Your task to perform on an android device: Open the calendar app Image 0: 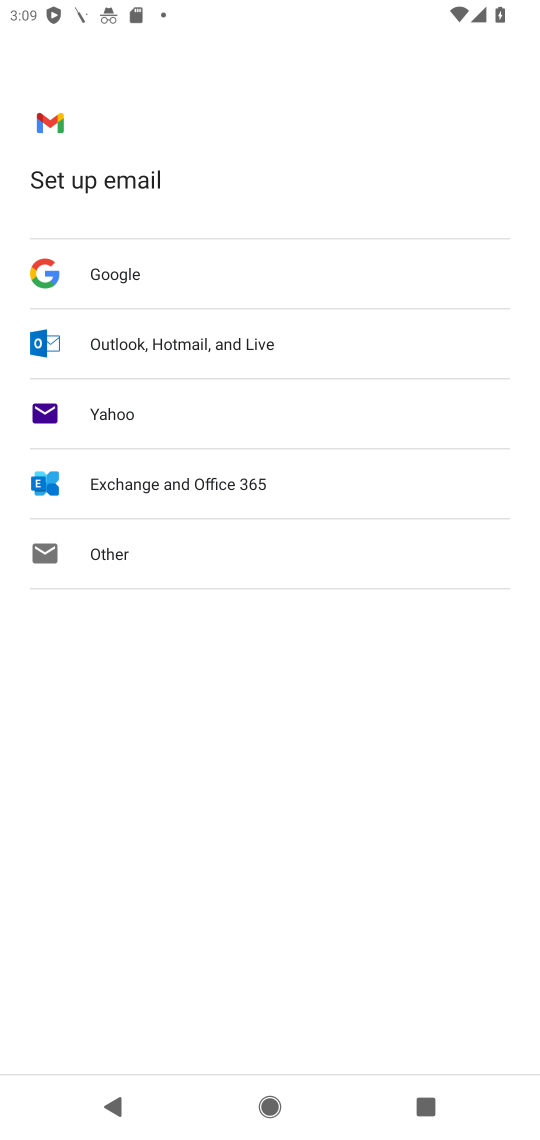
Step 0: press home button
Your task to perform on an android device: Open the calendar app Image 1: 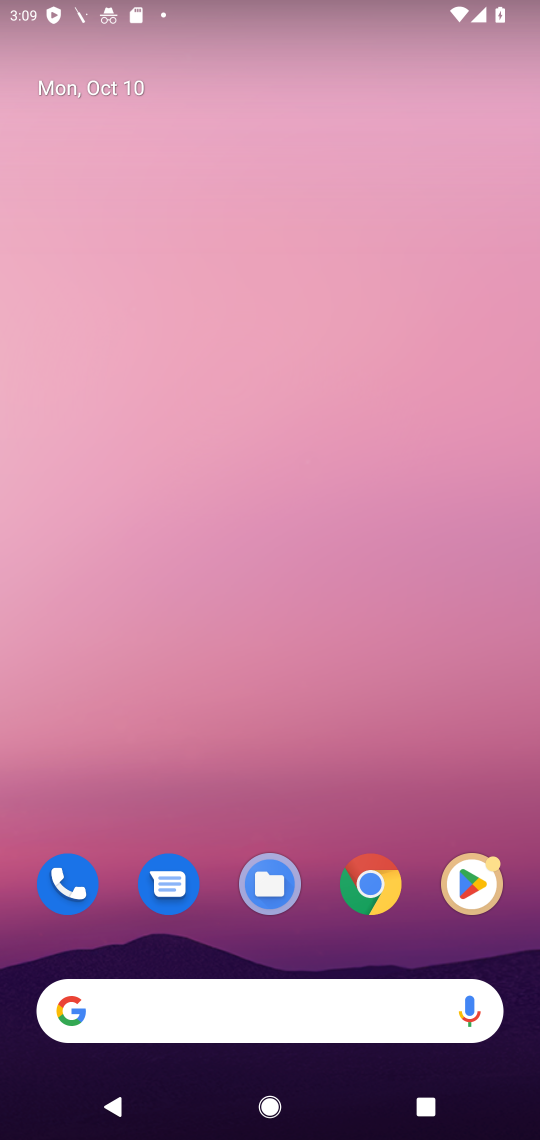
Step 1: drag from (306, 813) to (240, 304)
Your task to perform on an android device: Open the calendar app Image 2: 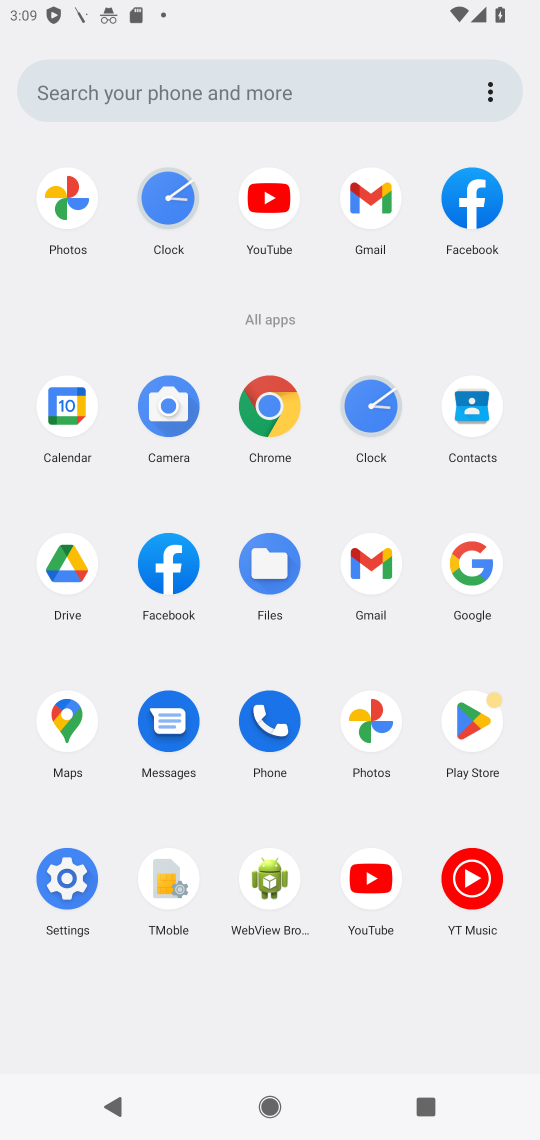
Step 2: click (61, 404)
Your task to perform on an android device: Open the calendar app Image 3: 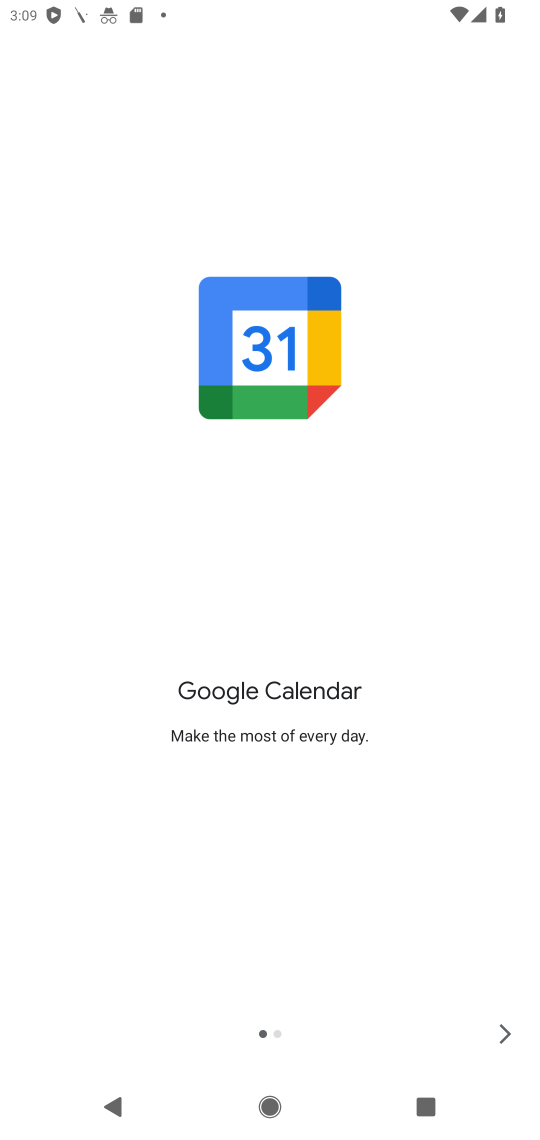
Step 3: click (499, 1034)
Your task to perform on an android device: Open the calendar app Image 4: 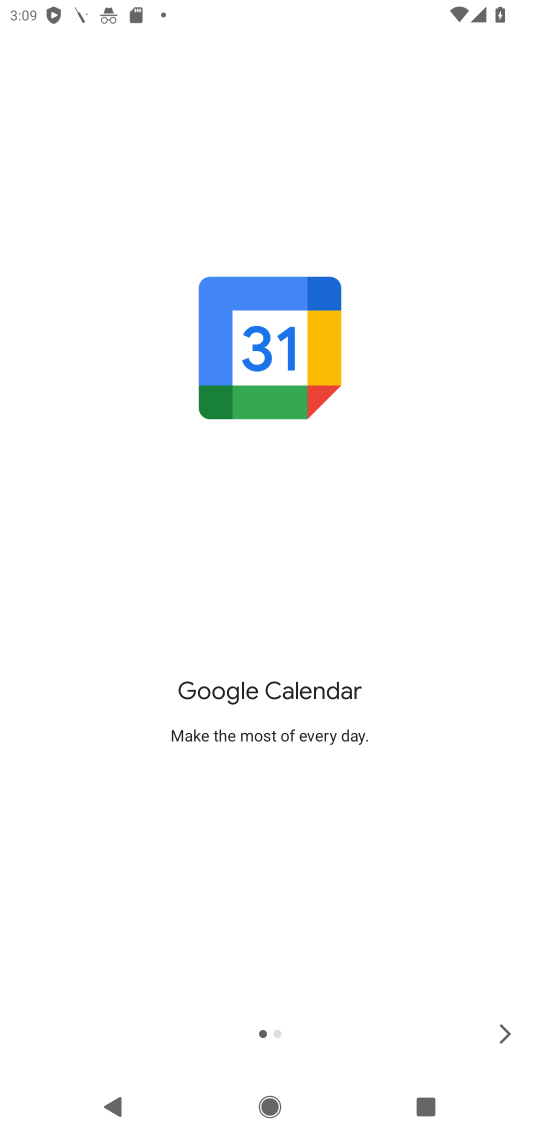
Step 4: click (499, 1034)
Your task to perform on an android device: Open the calendar app Image 5: 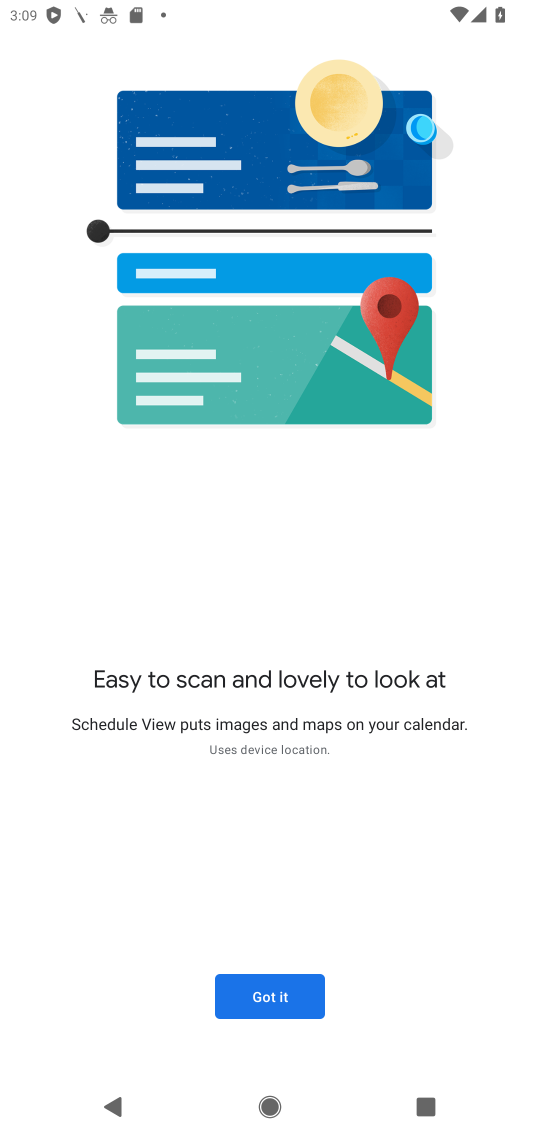
Step 5: click (295, 998)
Your task to perform on an android device: Open the calendar app Image 6: 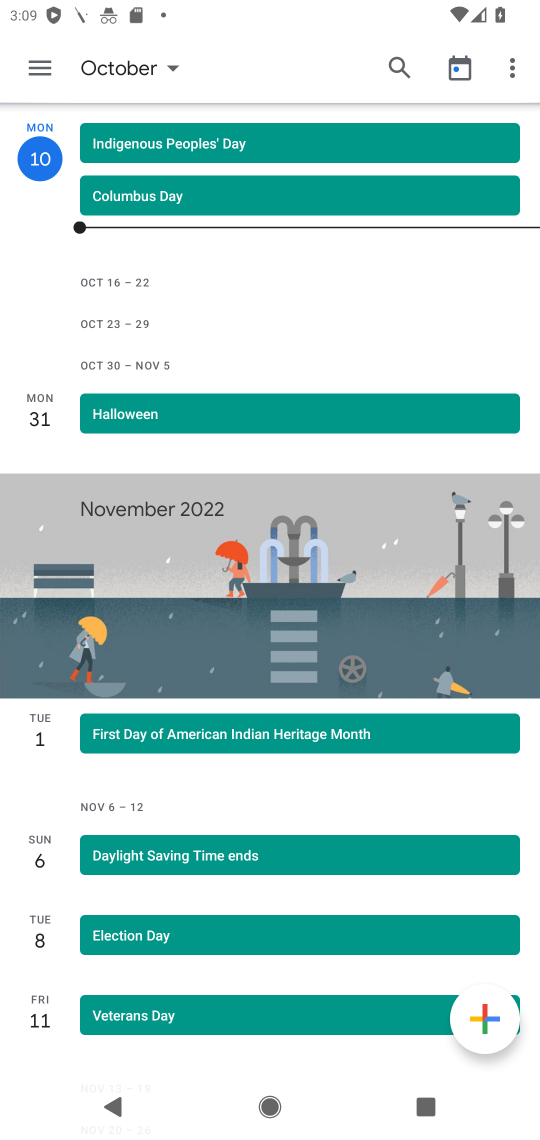
Step 6: task complete